Your task to perform on an android device: change the clock display to show seconds Image 0: 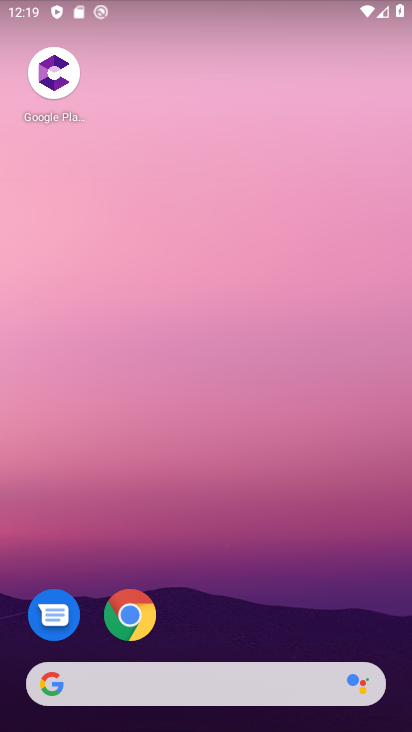
Step 0: press home button
Your task to perform on an android device: change the clock display to show seconds Image 1: 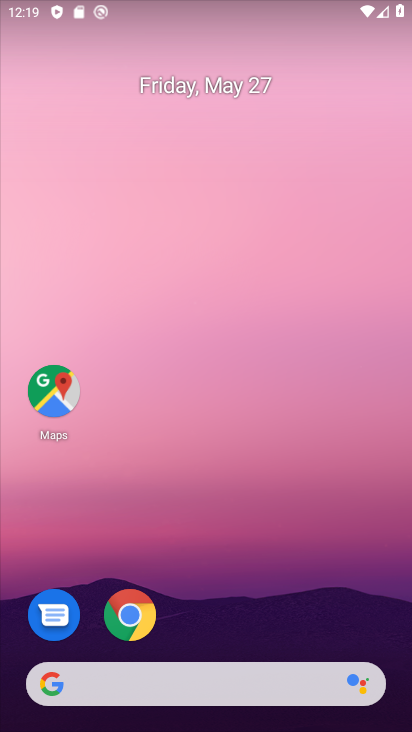
Step 1: drag from (270, 622) to (273, 166)
Your task to perform on an android device: change the clock display to show seconds Image 2: 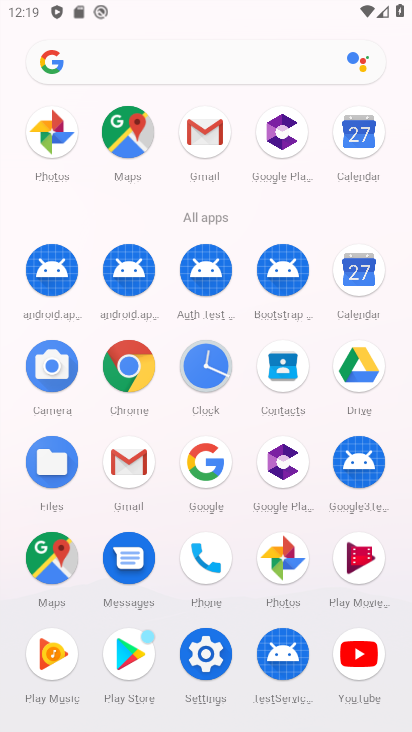
Step 2: click (206, 377)
Your task to perform on an android device: change the clock display to show seconds Image 3: 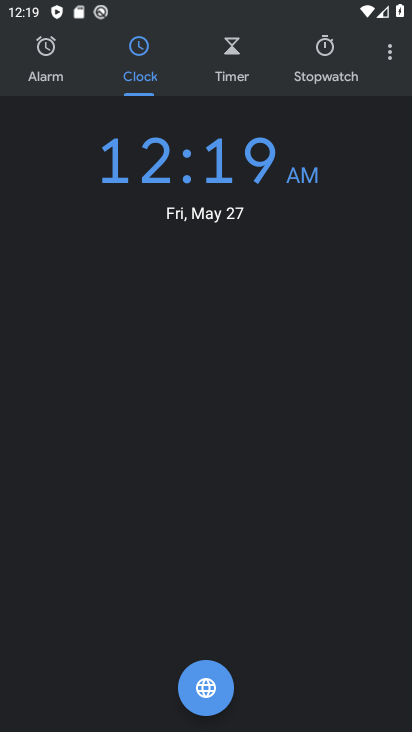
Step 3: click (395, 48)
Your task to perform on an android device: change the clock display to show seconds Image 4: 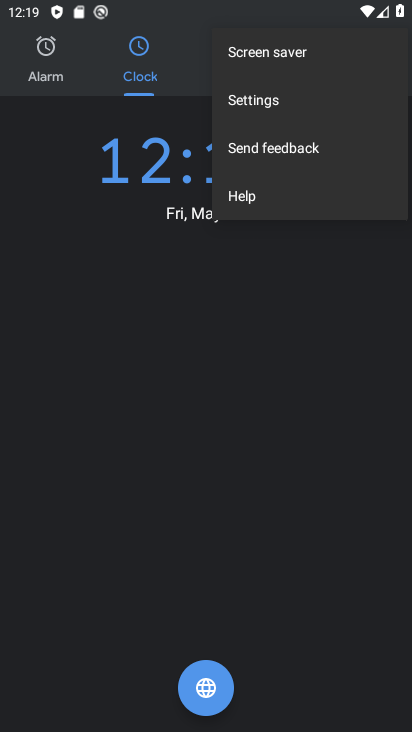
Step 4: click (257, 97)
Your task to perform on an android device: change the clock display to show seconds Image 5: 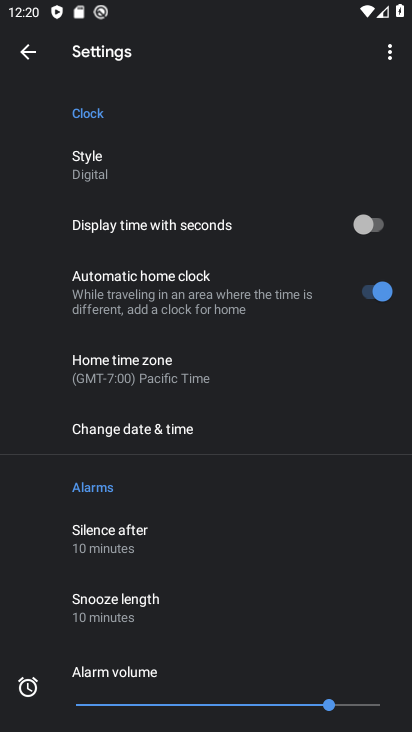
Step 5: click (371, 230)
Your task to perform on an android device: change the clock display to show seconds Image 6: 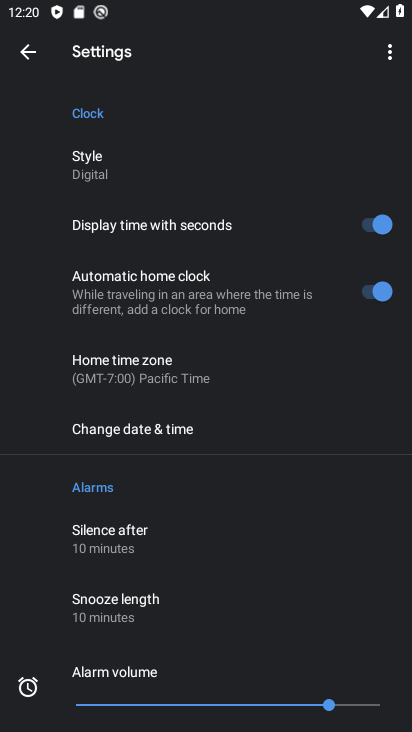
Step 6: task complete